Your task to perform on an android device: snooze an email in the gmail app Image 0: 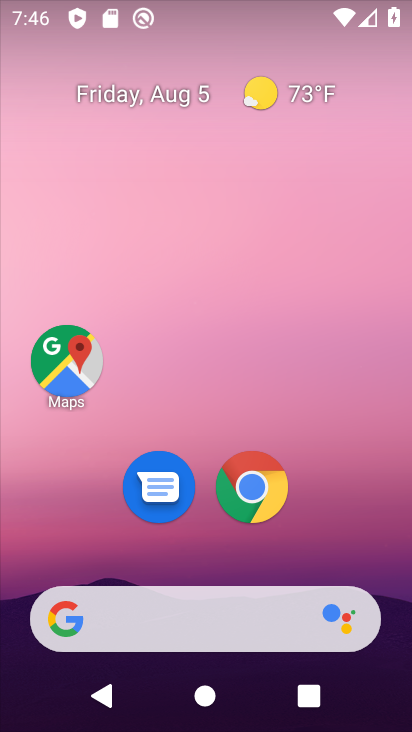
Step 0: drag from (226, 620) to (260, 84)
Your task to perform on an android device: snooze an email in the gmail app Image 1: 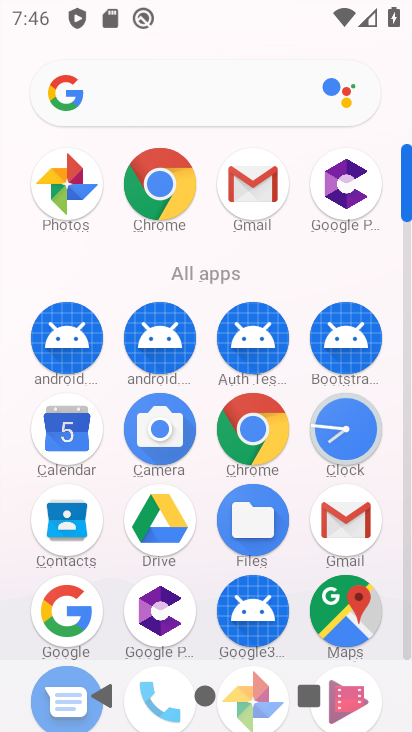
Step 1: click (246, 181)
Your task to perform on an android device: snooze an email in the gmail app Image 2: 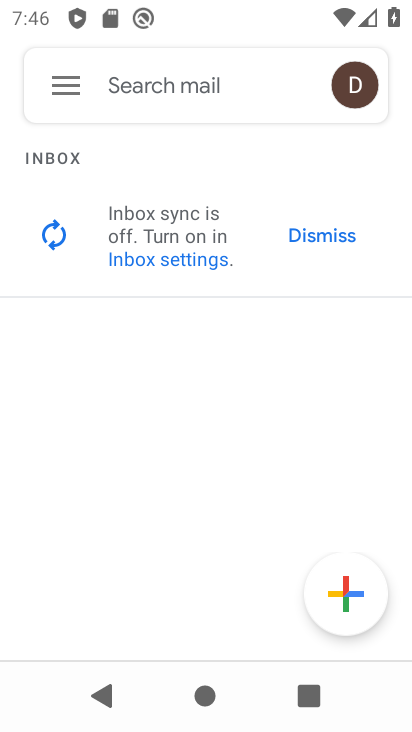
Step 2: click (68, 84)
Your task to perform on an android device: snooze an email in the gmail app Image 3: 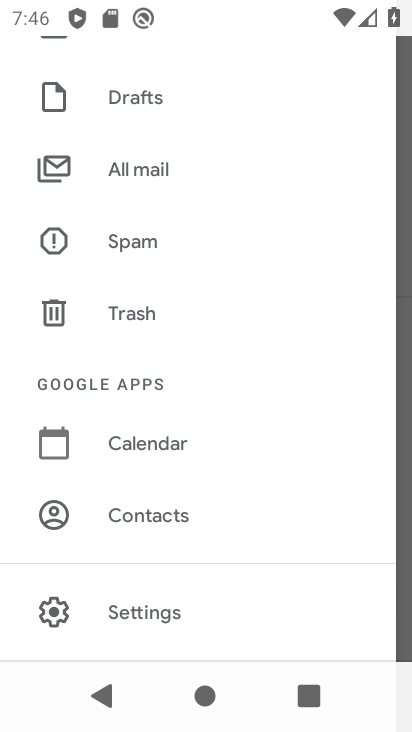
Step 3: click (152, 169)
Your task to perform on an android device: snooze an email in the gmail app Image 4: 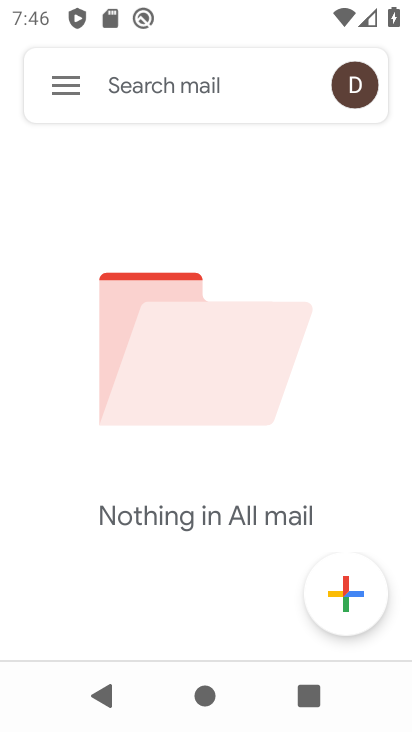
Step 4: task complete